Your task to perform on an android device: Open Google Chrome Image 0: 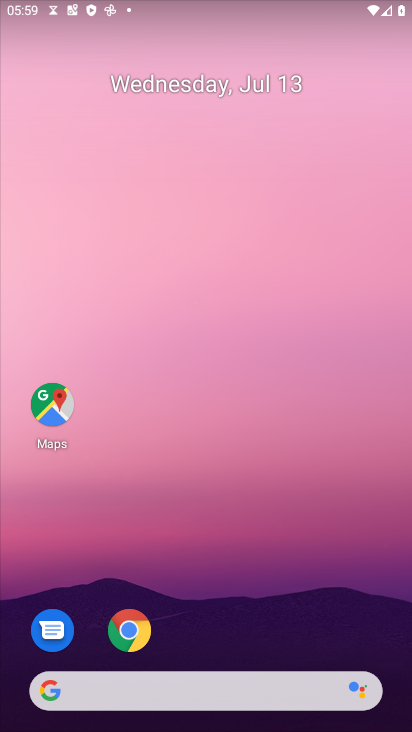
Step 0: drag from (221, 688) to (258, 42)
Your task to perform on an android device: Open Google Chrome Image 1: 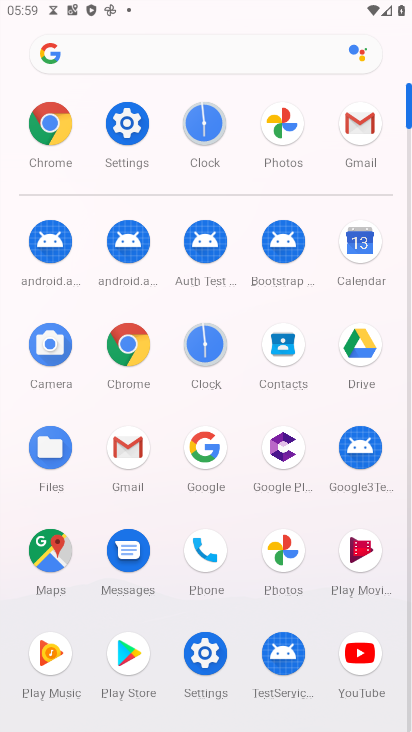
Step 1: click (137, 354)
Your task to perform on an android device: Open Google Chrome Image 2: 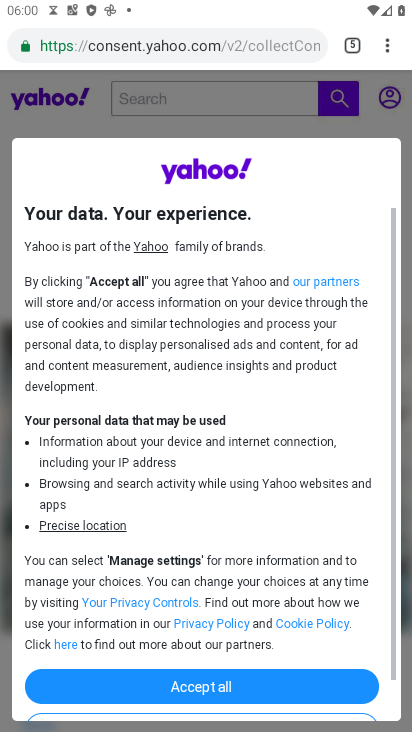
Step 2: task complete